Your task to perform on an android device: turn off data saver in the chrome app Image 0: 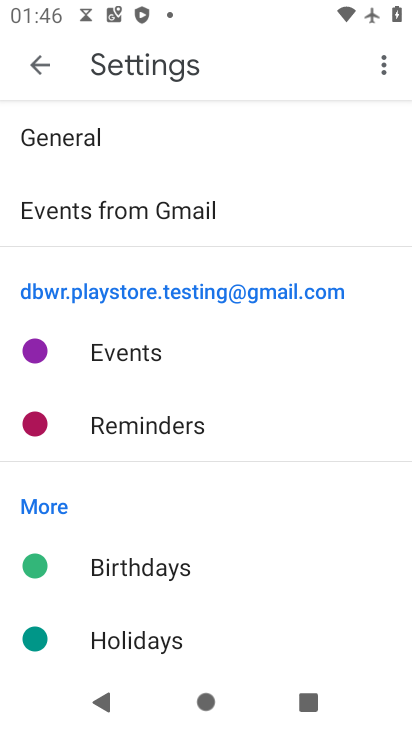
Step 0: press home button
Your task to perform on an android device: turn off data saver in the chrome app Image 1: 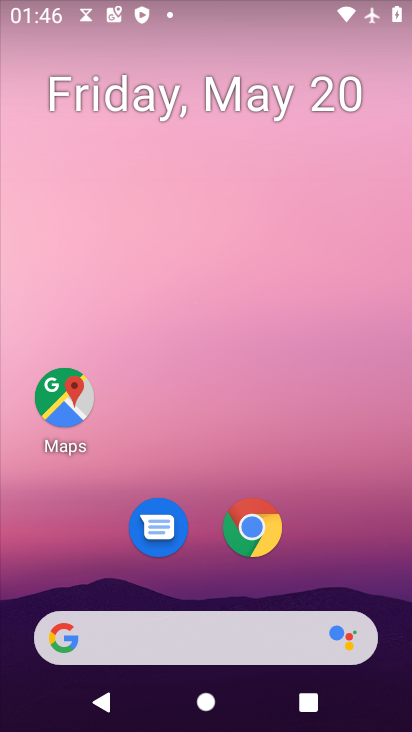
Step 1: click (254, 533)
Your task to perform on an android device: turn off data saver in the chrome app Image 2: 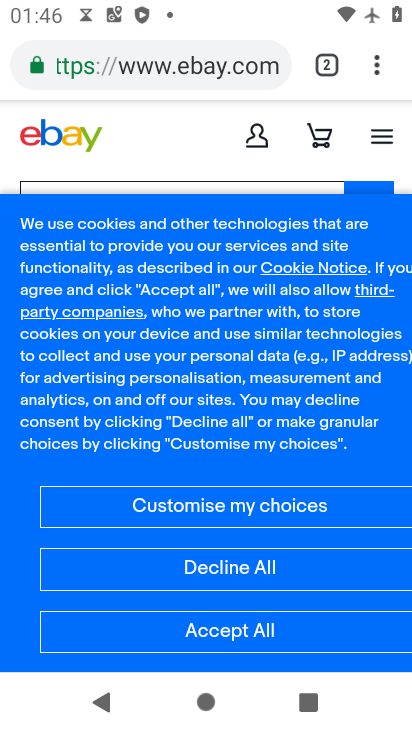
Step 2: drag from (377, 71) to (254, 584)
Your task to perform on an android device: turn off data saver in the chrome app Image 3: 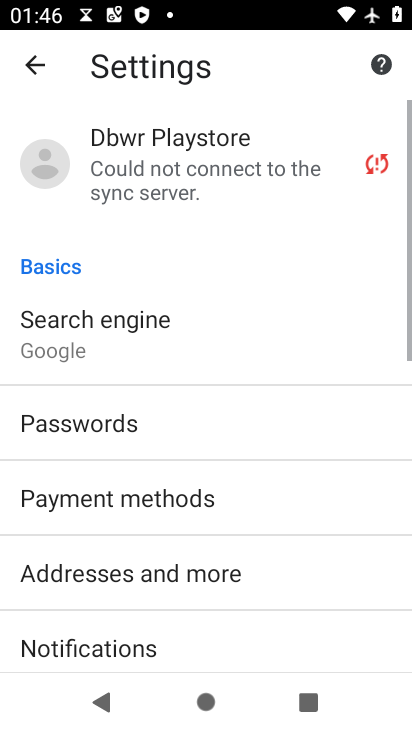
Step 3: drag from (208, 585) to (300, 125)
Your task to perform on an android device: turn off data saver in the chrome app Image 4: 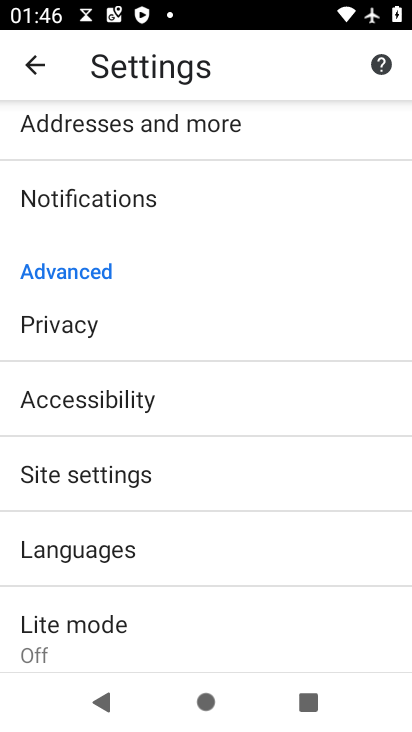
Step 4: click (125, 638)
Your task to perform on an android device: turn off data saver in the chrome app Image 5: 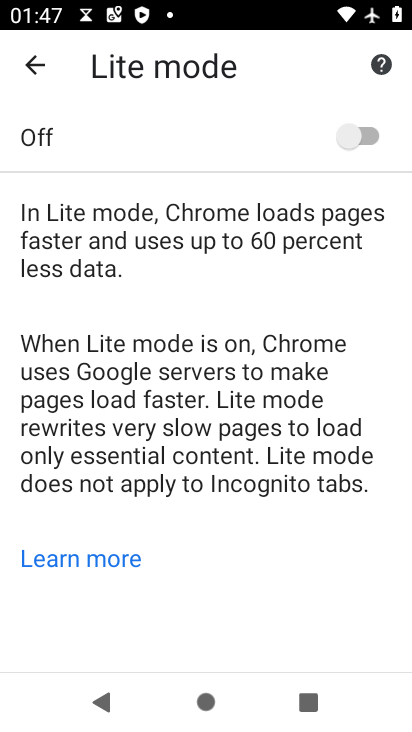
Step 5: task complete